Your task to perform on an android device: read, delete, or share a saved page in the chrome app Image 0: 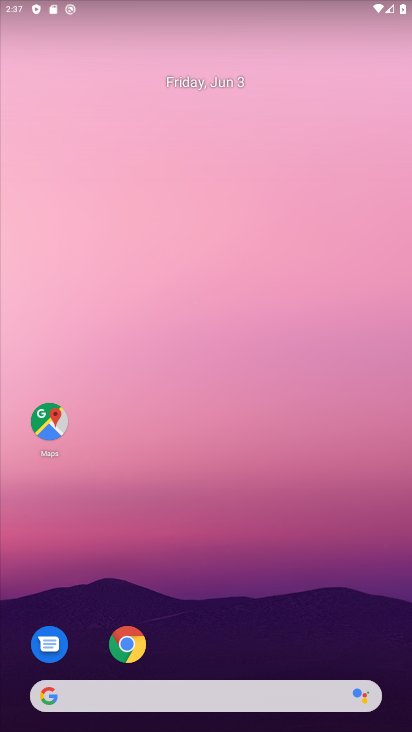
Step 0: press home button
Your task to perform on an android device: read, delete, or share a saved page in the chrome app Image 1: 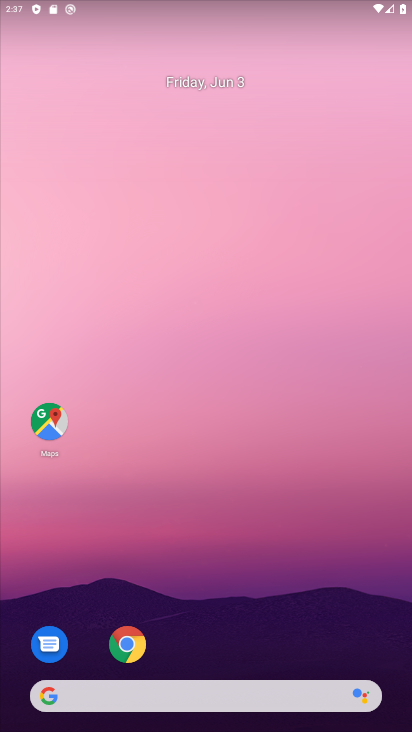
Step 1: click (320, 597)
Your task to perform on an android device: read, delete, or share a saved page in the chrome app Image 2: 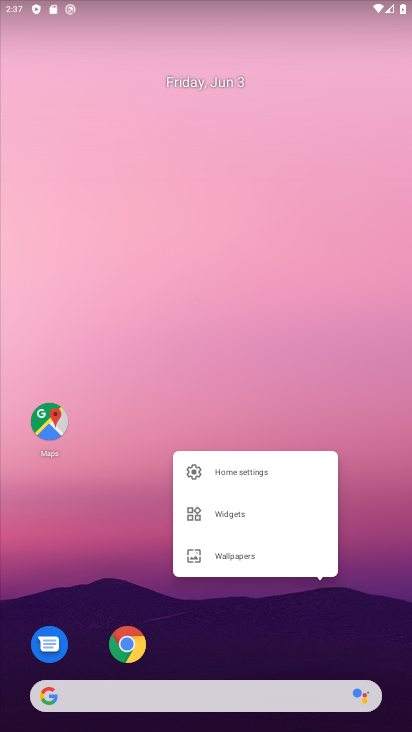
Step 2: click (123, 652)
Your task to perform on an android device: read, delete, or share a saved page in the chrome app Image 3: 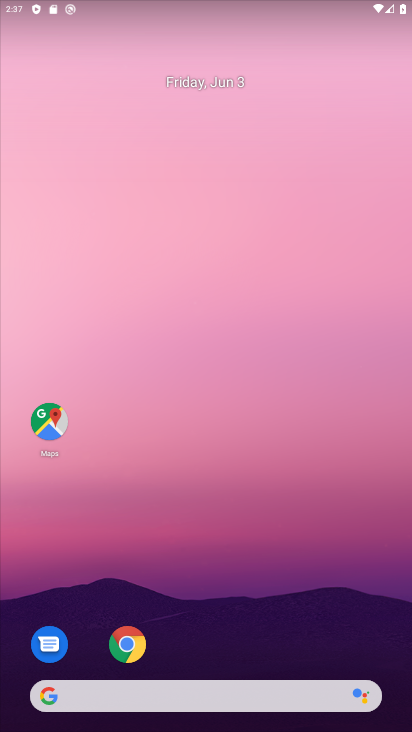
Step 3: click (131, 649)
Your task to perform on an android device: read, delete, or share a saved page in the chrome app Image 4: 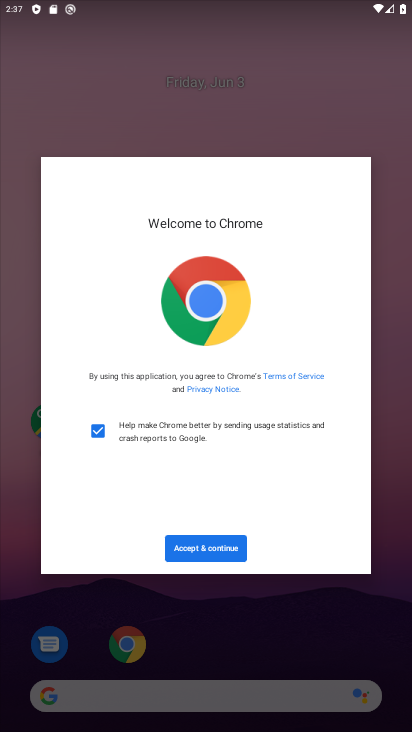
Step 4: click (179, 546)
Your task to perform on an android device: read, delete, or share a saved page in the chrome app Image 5: 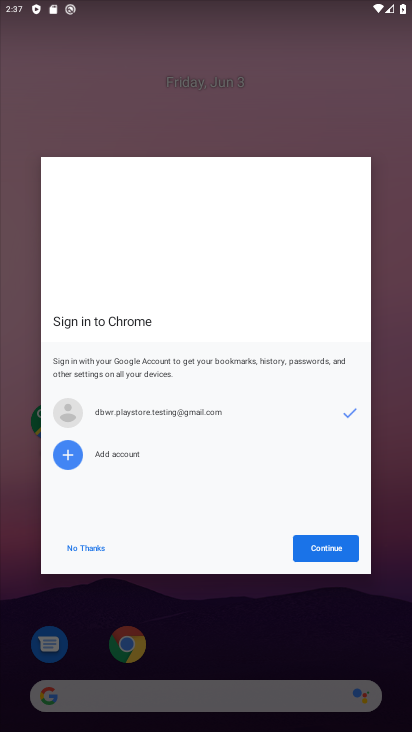
Step 5: click (315, 555)
Your task to perform on an android device: read, delete, or share a saved page in the chrome app Image 6: 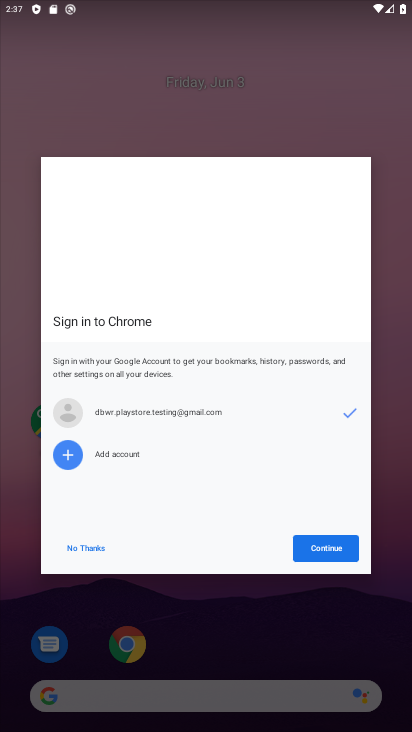
Step 6: click (315, 555)
Your task to perform on an android device: read, delete, or share a saved page in the chrome app Image 7: 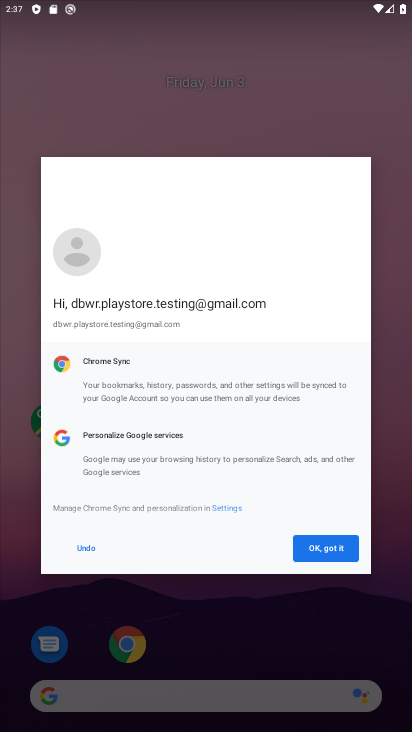
Step 7: click (315, 555)
Your task to perform on an android device: read, delete, or share a saved page in the chrome app Image 8: 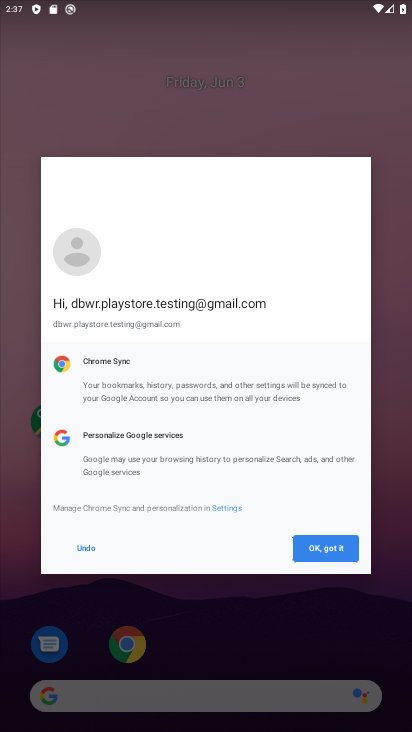
Step 8: click (315, 555)
Your task to perform on an android device: read, delete, or share a saved page in the chrome app Image 9: 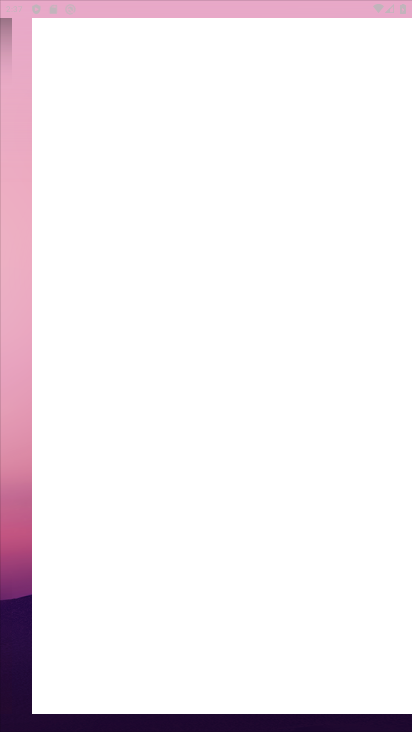
Step 9: click (315, 555)
Your task to perform on an android device: read, delete, or share a saved page in the chrome app Image 10: 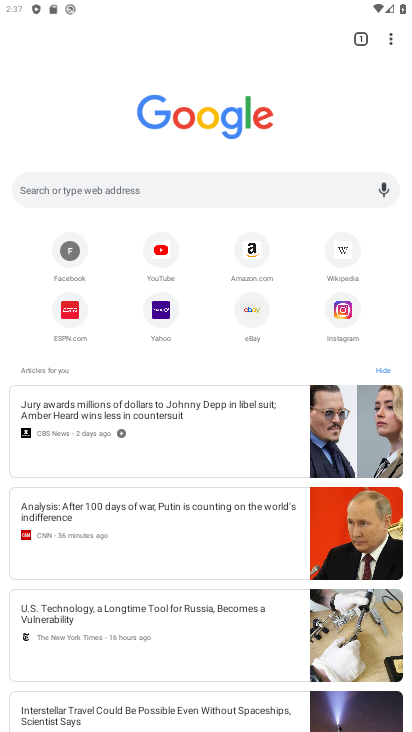
Step 10: click (388, 31)
Your task to perform on an android device: read, delete, or share a saved page in the chrome app Image 11: 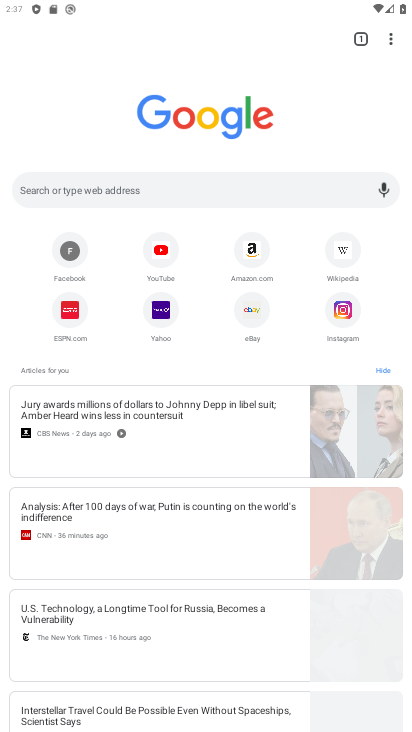
Step 11: click (376, 70)
Your task to perform on an android device: read, delete, or share a saved page in the chrome app Image 12: 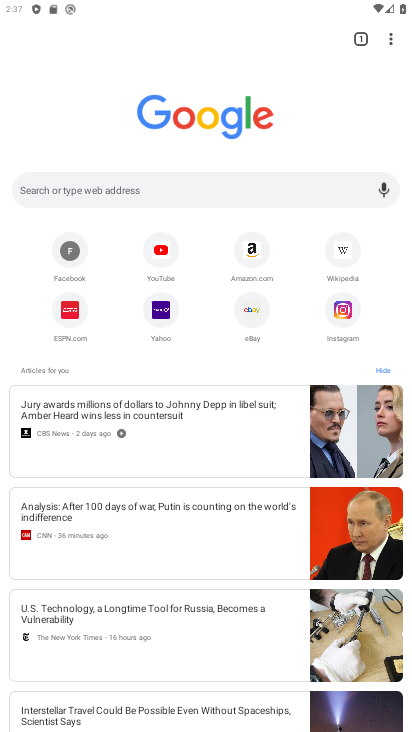
Step 12: drag from (382, 38) to (279, 256)
Your task to perform on an android device: read, delete, or share a saved page in the chrome app Image 13: 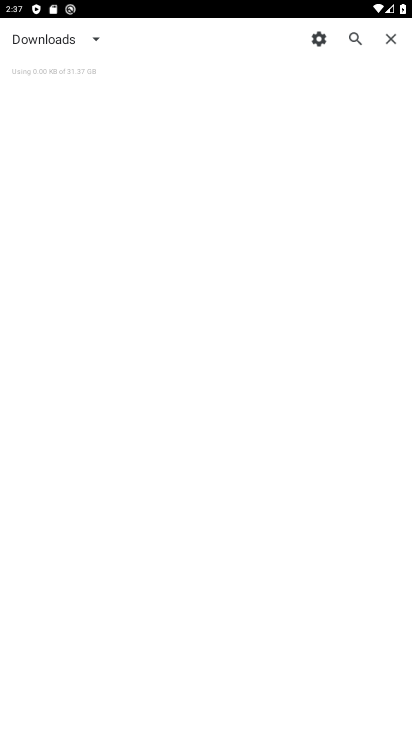
Step 13: click (87, 39)
Your task to perform on an android device: read, delete, or share a saved page in the chrome app Image 14: 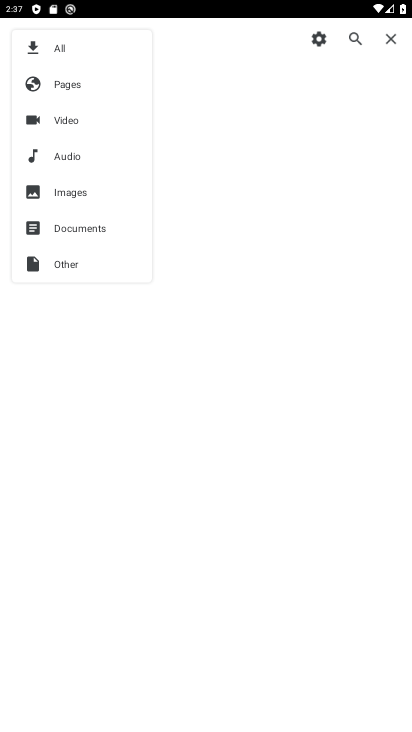
Step 14: click (47, 81)
Your task to perform on an android device: read, delete, or share a saved page in the chrome app Image 15: 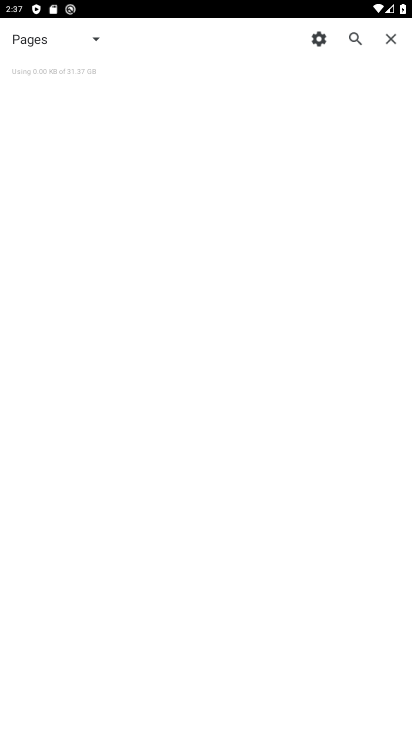
Step 15: task complete